Your task to perform on an android device: change notifications settings Image 0: 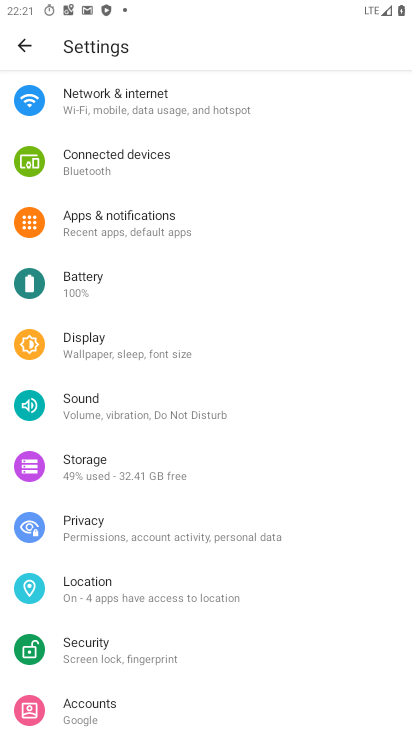
Step 0: press home button
Your task to perform on an android device: change notifications settings Image 1: 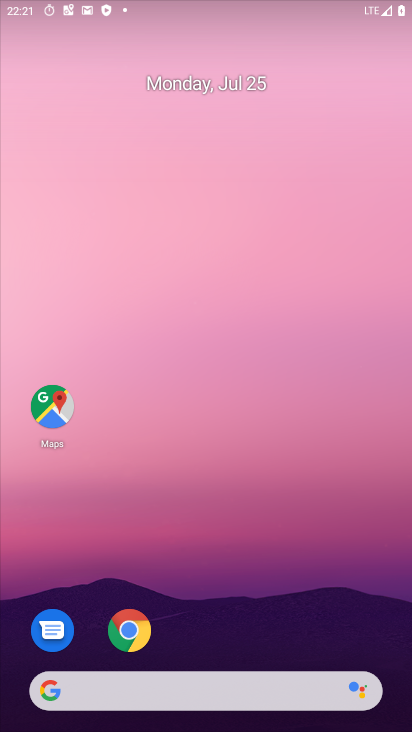
Step 1: drag from (246, 579) to (267, 122)
Your task to perform on an android device: change notifications settings Image 2: 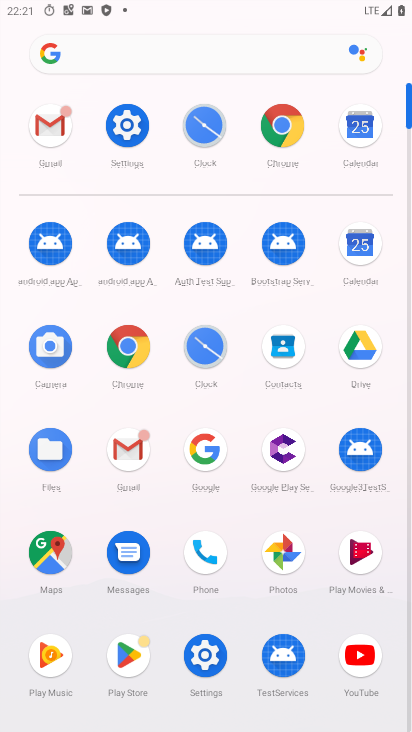
Step 2: click (117, 114)
Your task to perform on an android device: change notifications settings Image 3: 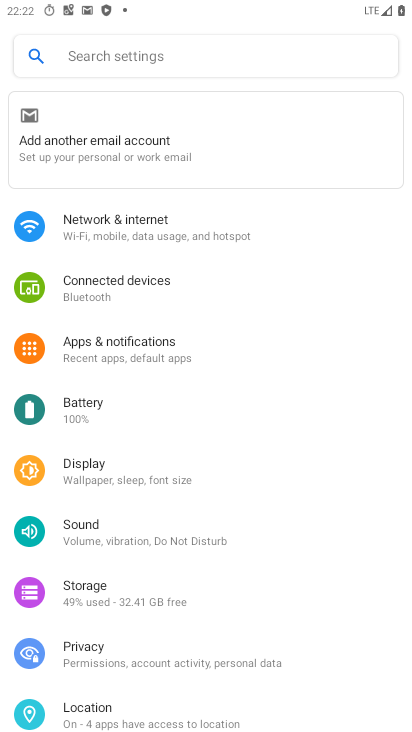
Step 3: click (99, 350)
Your task to perform on an android device: change notifications settings Image 4: 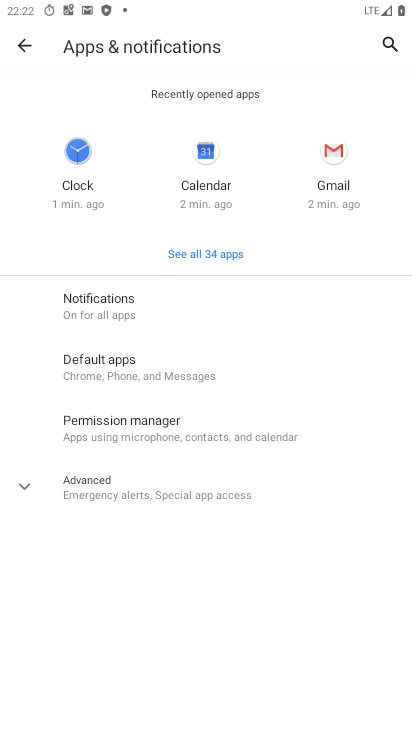
Step 4: click (93, 299)
Your task to perform on an android device: change notifications settings Image 5: 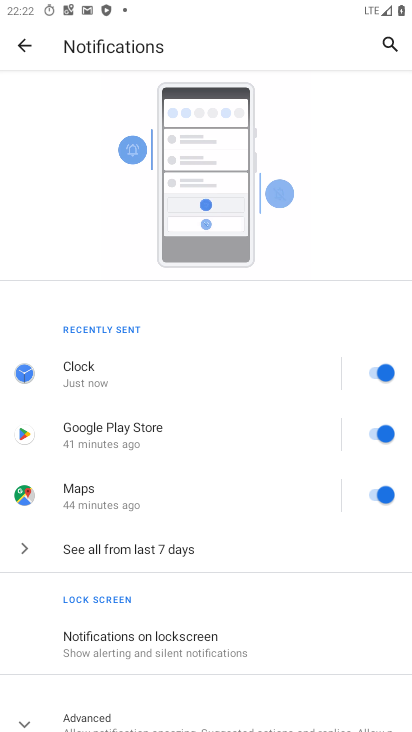
Step 5: click (137, 147)
Your task to perform on an android device: change notifications settings Image 6: 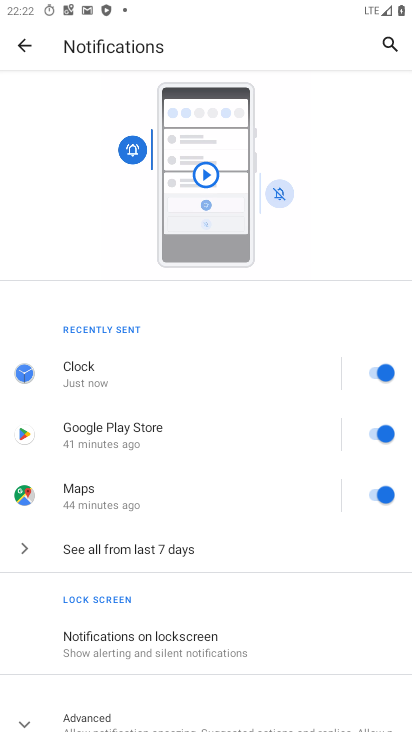
Step 6: task complete